Your task to perform on an android device: Check the weather Image 0: 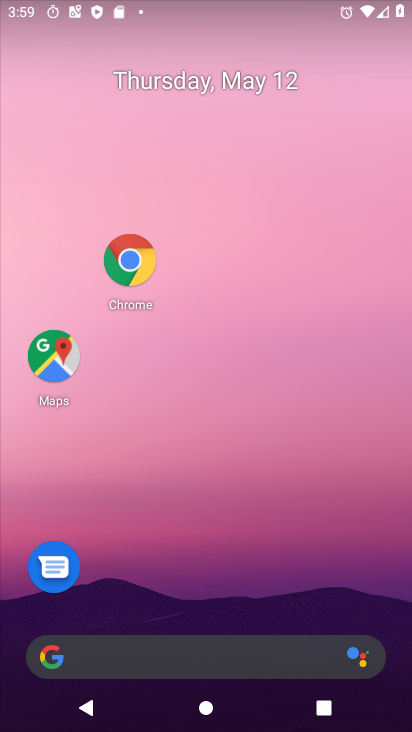
Step 0: drag from (212, 631) to (204, 249)
Your task to perform on an android device: Check the weather Image 1: 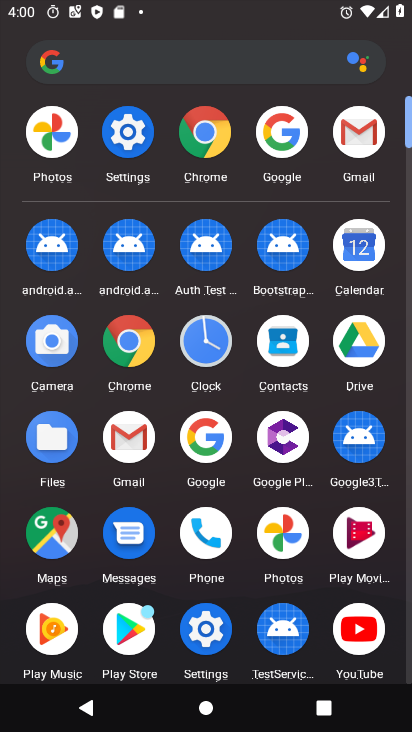
Step 1: click (194, 438)
Your task to perform on an android device: Check the weather Image 2: 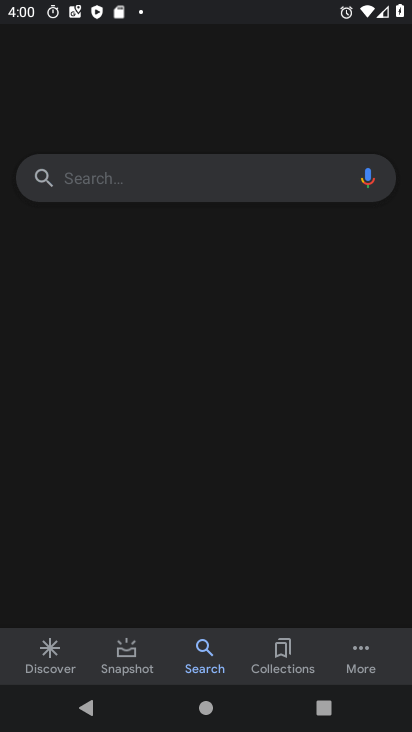
Step 2: click (117, 177)
Your task to perform on an android device: Check the weather Image 3: 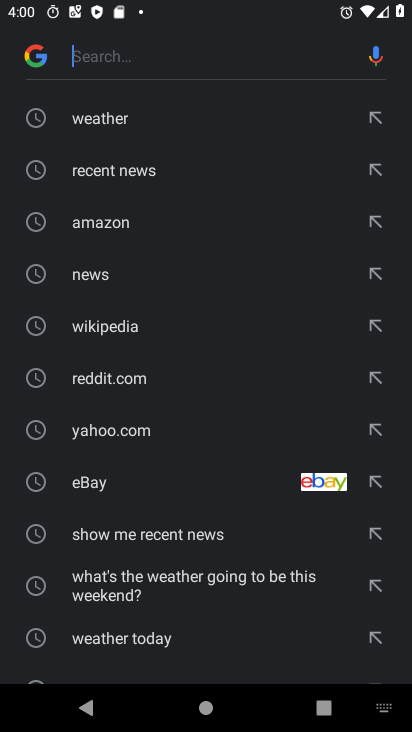
Step 3: click (115, 142)
Your task to perform on an android device: Check the weather Image 4: 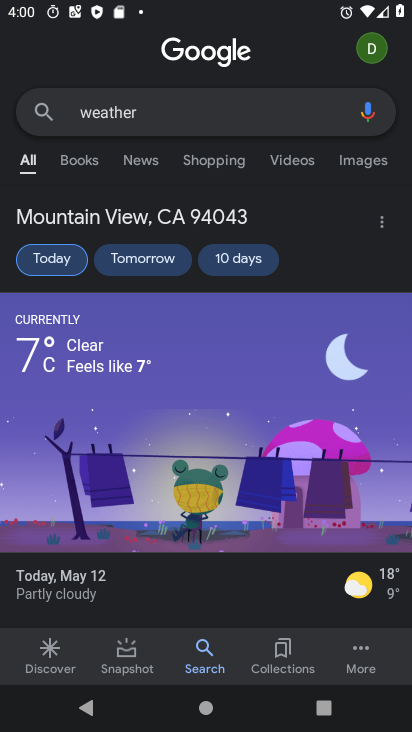
Step 4: drag from (138, 517) to (164, 236)
Your task to perform on an android device: Check the weather Image 5: 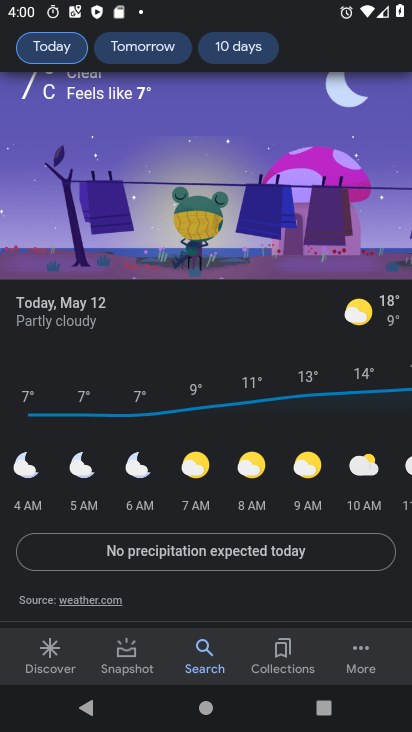
Step 5: click (138, 555)
Your task to perform on an android device: Check the weather Image 6: 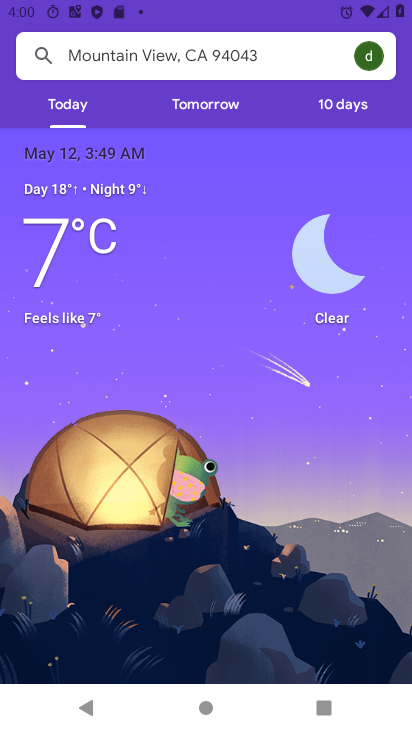
Step 6: task complete